Your task to perform on an android device: turn on data saver in the chrome app Image 0: 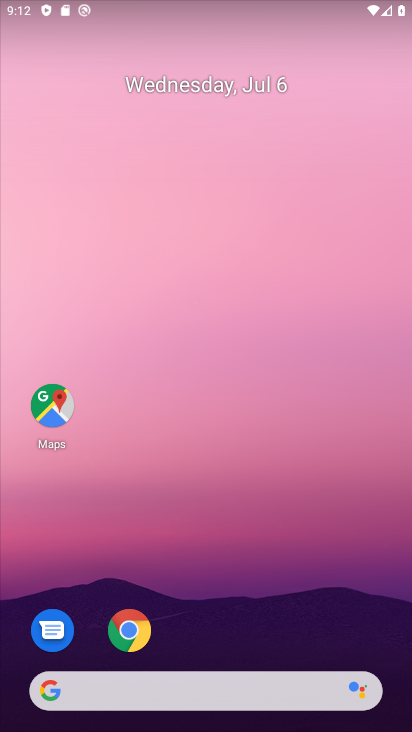
Step 0: click (136, 632)
Your task to perform on an android device: turn on data saver in the chrome app Image 1: 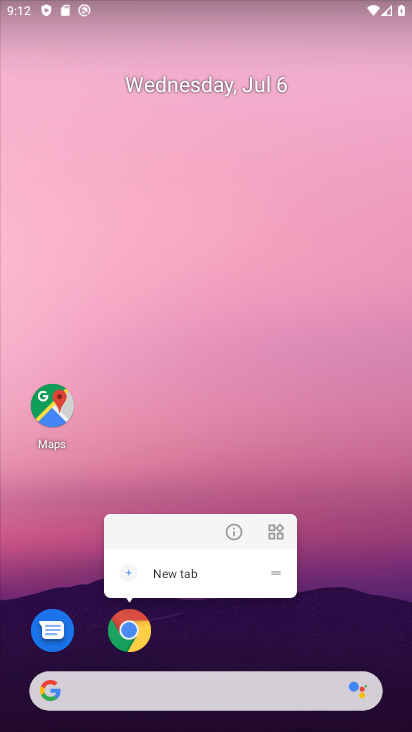
Step 1: click (136, 632)
Your task to perform on an android device: turn on data saver in the chrome app Image 2: 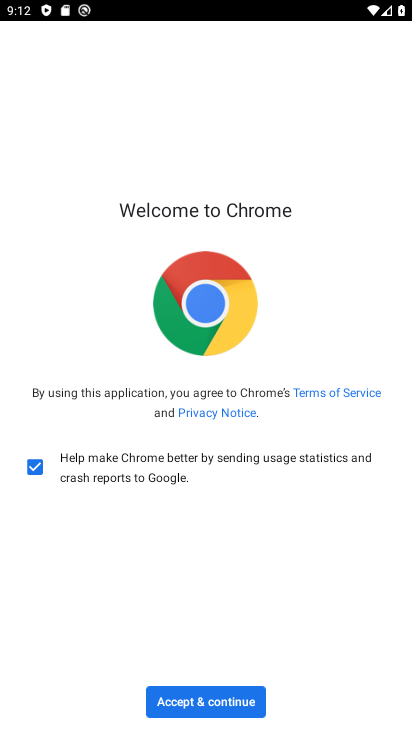
Step 2: click (201, 711)
Your task to perform on an android device: turn on data saver in the chrome app Image 3: 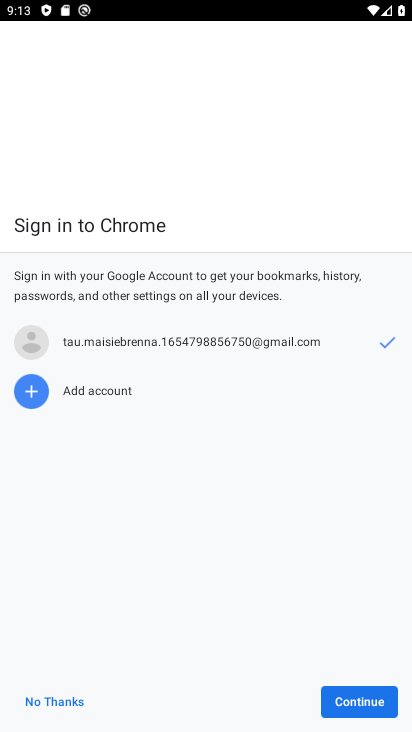
Step 3: click (341, 701)
Your task to perform on an android device: turn on data saver in the chrome app Image 4: 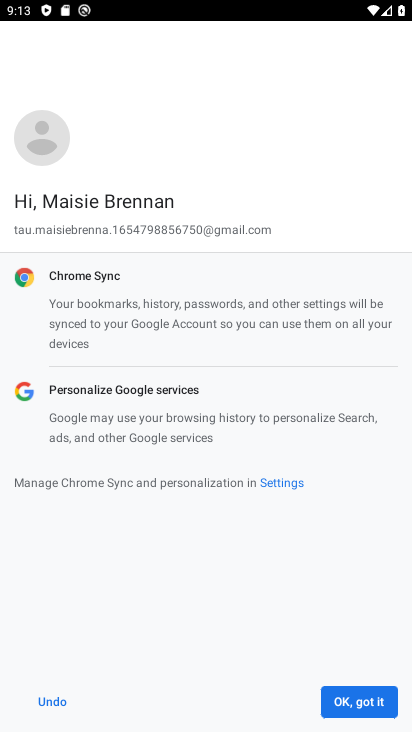
Step 4: click (342, 703)
Your task to perform on an android device: turn on data saver in the chrome app Image 5: 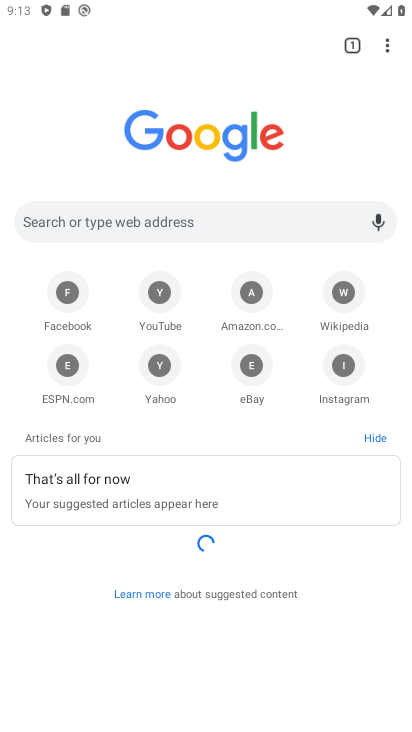
Step 5: click (389, 41)
Your task to perform on an android device: turn on data saver in the chrome app Image 6: 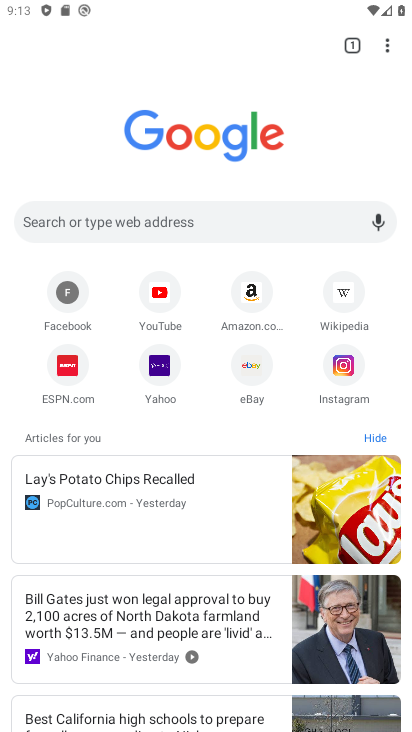
Step 6: click (389, 49)
Your task to perform on an android device: turn on data saver in the chrome app Image 7: 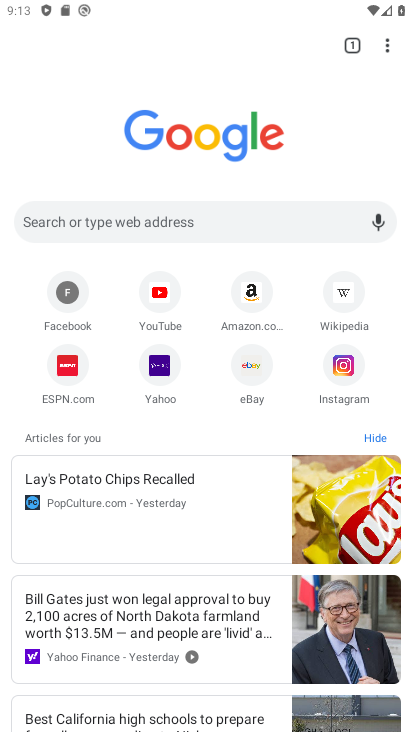
Step 7: click (384, 47)
Your task to perform on an android device: turn on data saver in the chrome app Image 8: 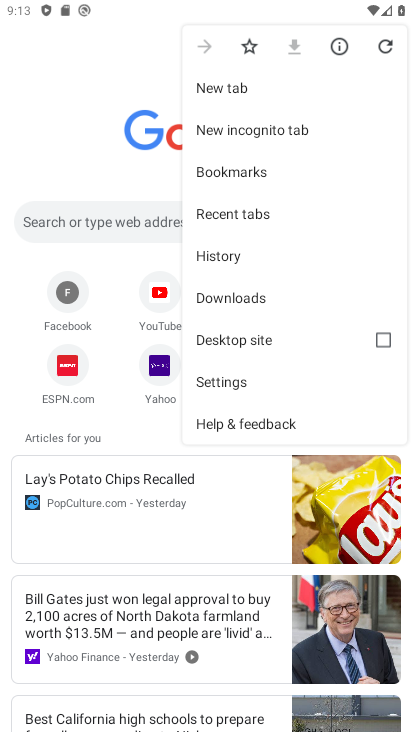
Step 8: click (227, 381)
Your task to perform on an android device: turn on data saver in the chrome app Image 9: 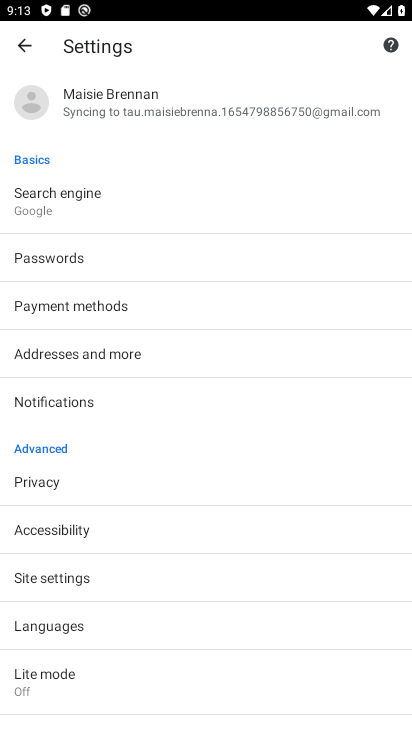
Step 9: click (53, 682)
Your task to perform on an android device: turn on data saver in the chrome app Image 10: 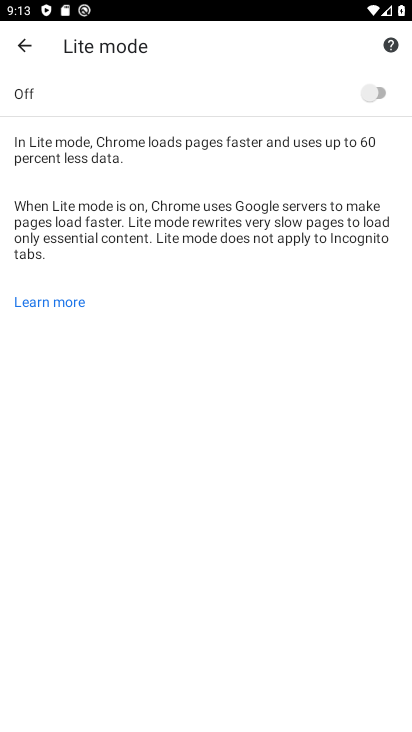
Step 10: click (386, 91)
Your task to perform on an android device: turn on data saver in the chrome app Image 11: 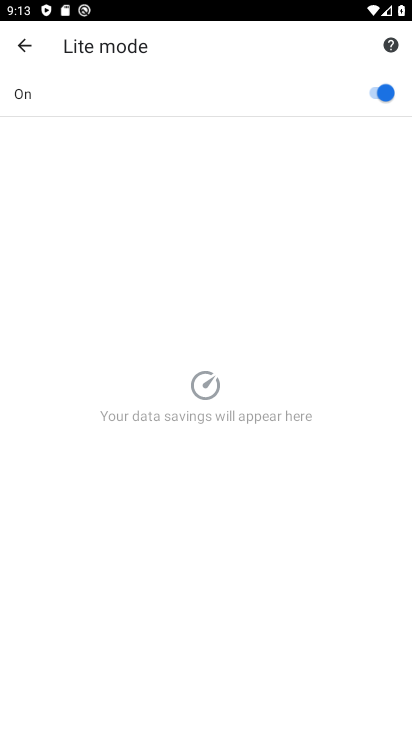
Step 11: task complete